Your task to perform on an android device: Open network settings Image 0: 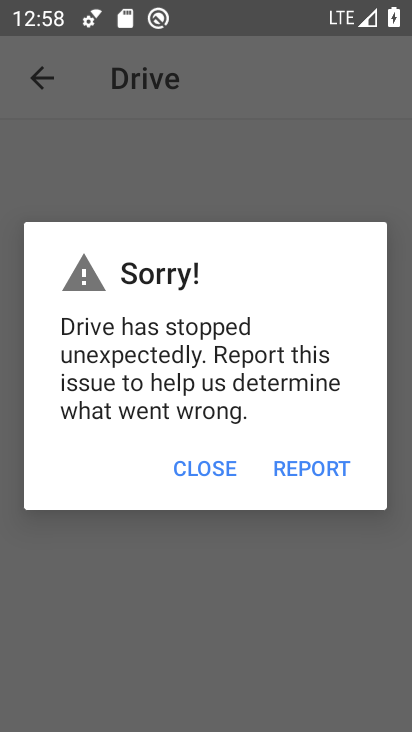
Step 0: click (239, 465)
Your task to perform on an android device: Open network settings Image 1: 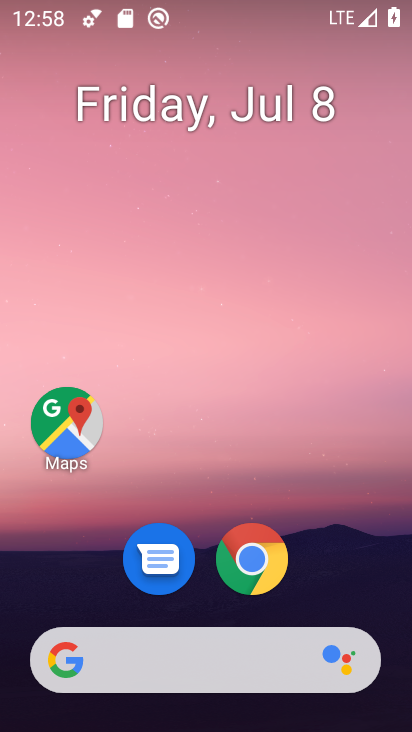
Step 1: press home button
Your task to perform on an android device: Open network settings Image 2: 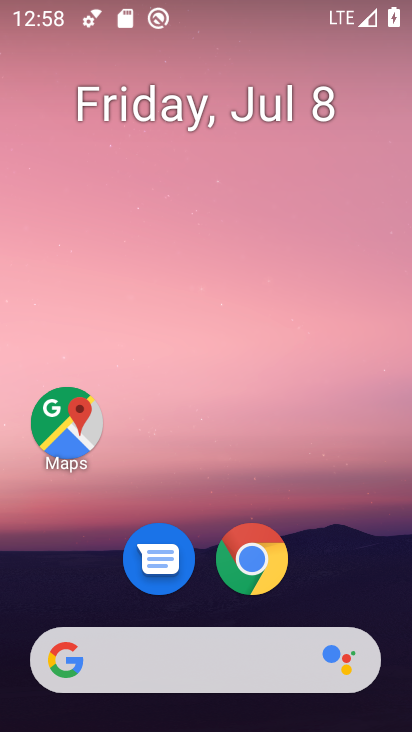
Step 2: drag from (236, 614) to (346, 4)
Your task to perform on an android device: Open network settings Image 3: 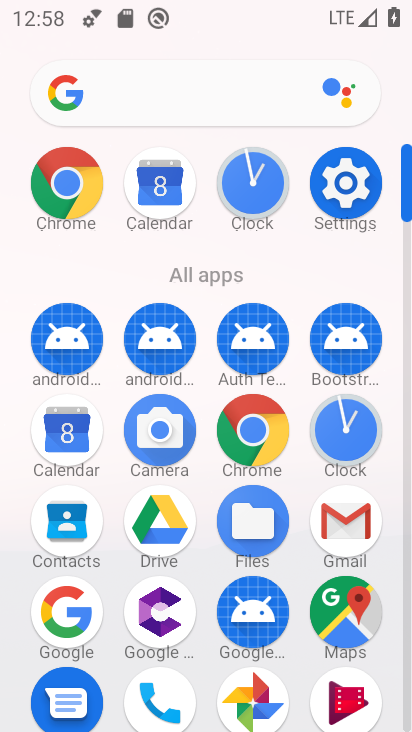
Step 3: click (356, 171)
Your task to perform on an android device: Open network settings Image 4: 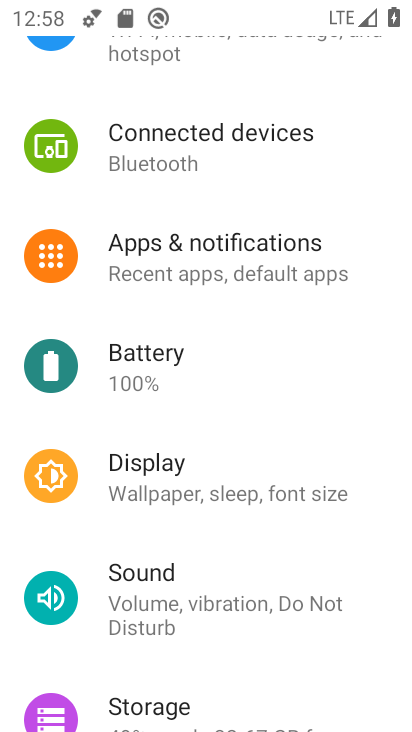
Step 4: drag from (296, 130) to (299, 451)
Your task to perform on an android device: Open network settings Image 5: 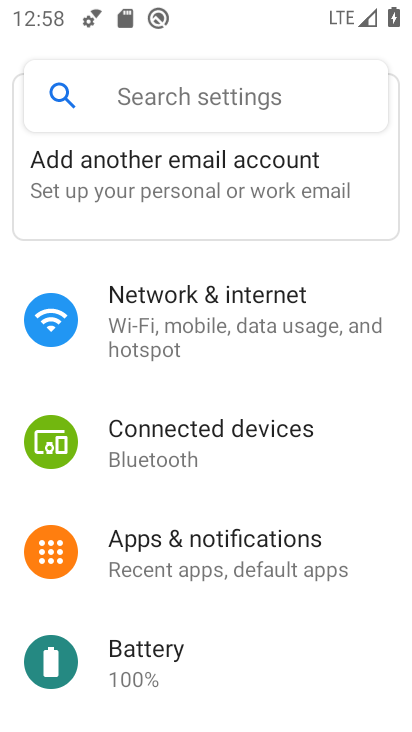
Step 5: click (243, 322)
Your task to perform on an android device: Open network settings Image 6: 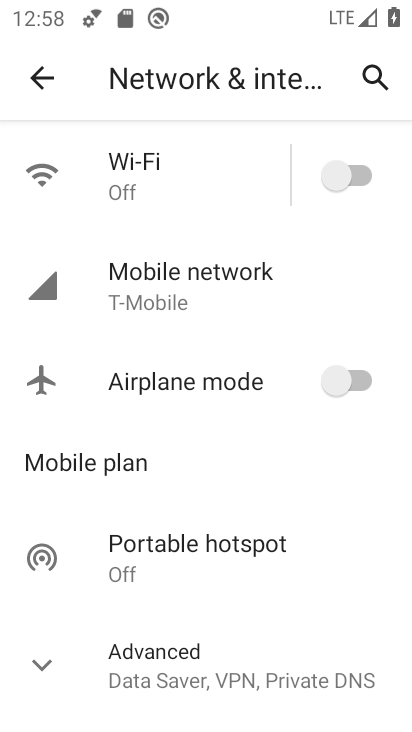
Step 6: click (242, 322)
Your task to perform on an android device: Open network settings Image 7: 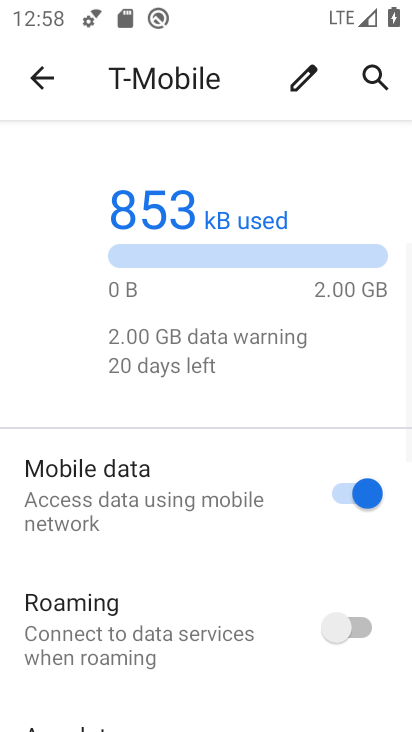
Step 7: task complete